Your task to perform on an android device: delete location history Image 0: 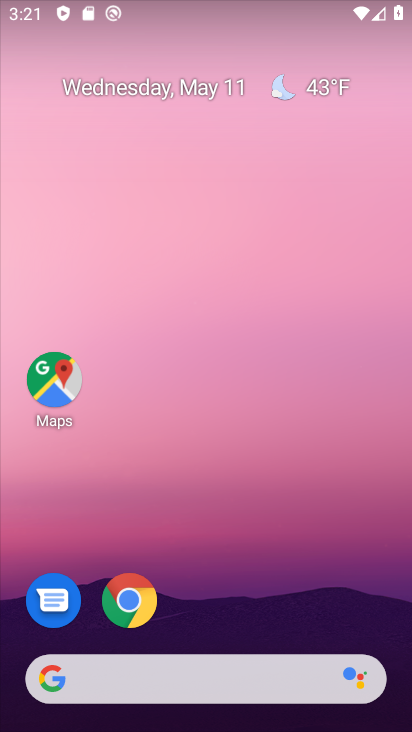
Step 0: click (53, 387)
Your task to perform on an android device: delete location history Image 1: 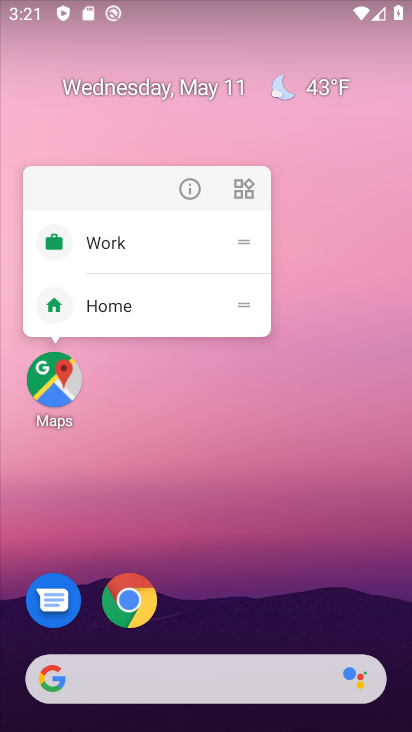
Step 1: click (53, 387)
Your task to perform on an android device: delete location history Image 2: 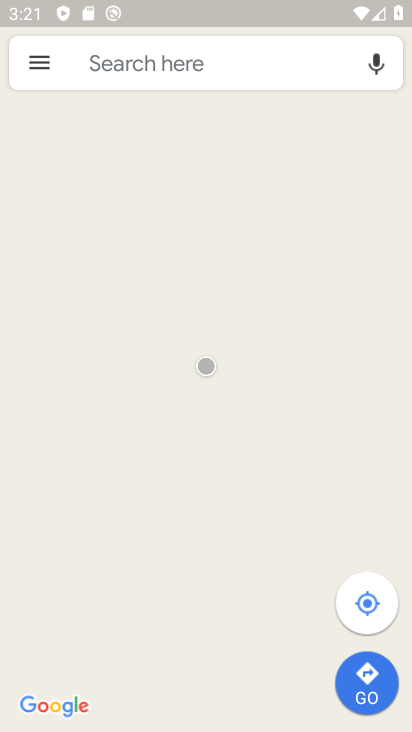
Step 2: click (38, 61)
Your task to perform on an android device: delete location history Image 3: 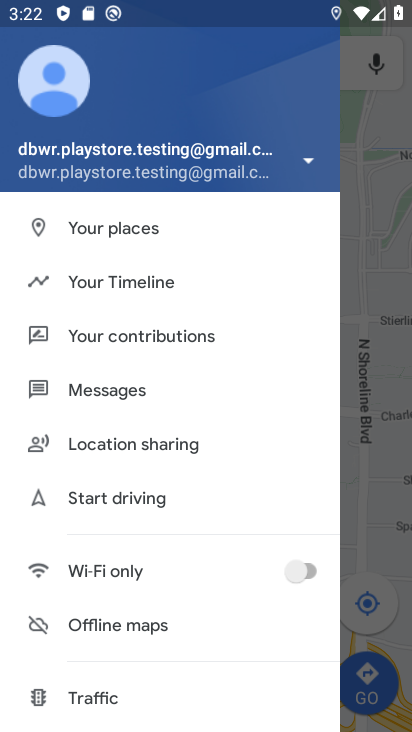
Step 3: click (90, 290)
Your task to perform on an android device: delete location history Image 4: 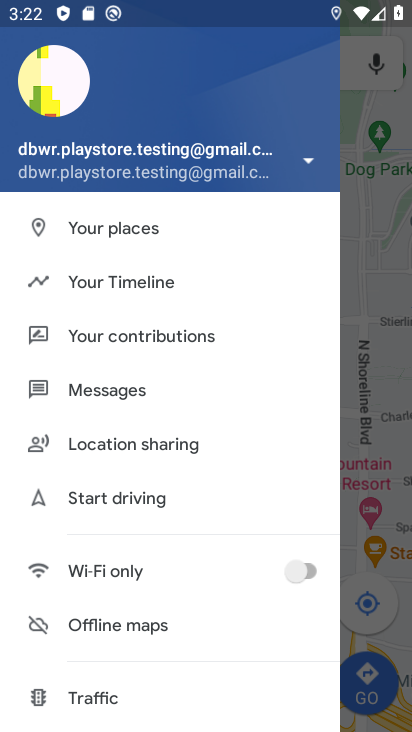
Step 4: click (128, 286)
Your task to perform on an android device: delete location history Image 5: 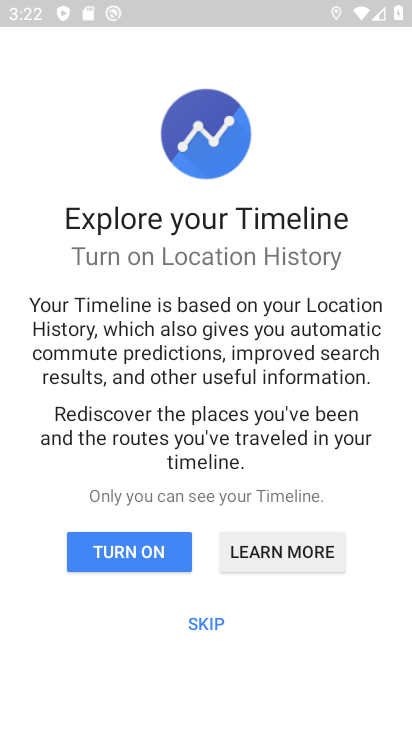
Step 5: click (212, 626)
Your task to perform on an android device: delete location history Image 6: 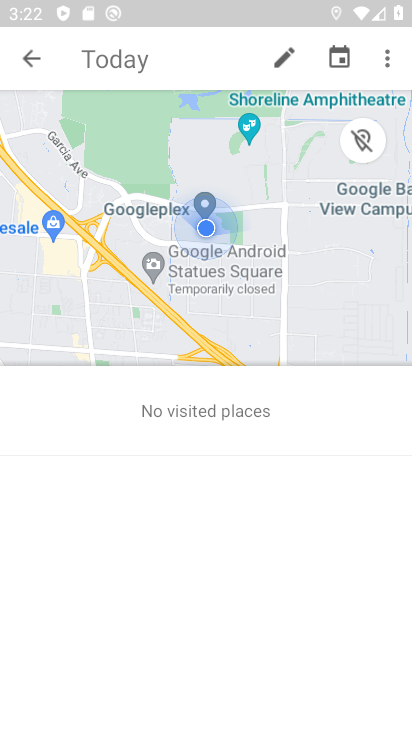
Step 6: click (389, 59)
Your task to perform on an android device: delete location history Image 7: 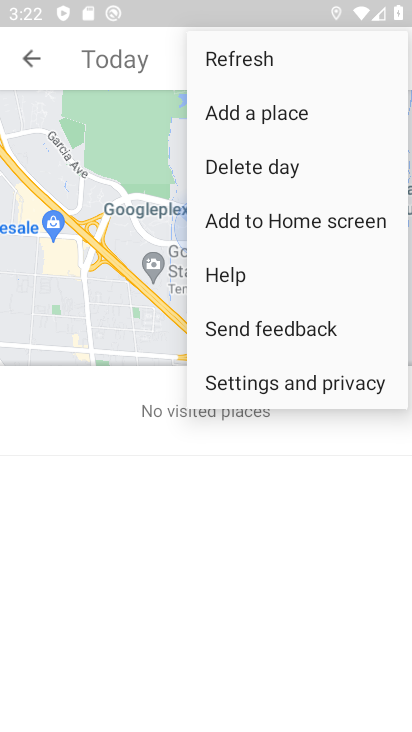
Step 7: click (260, 385)
Your task to perform on an android device: delete location history Image 8: 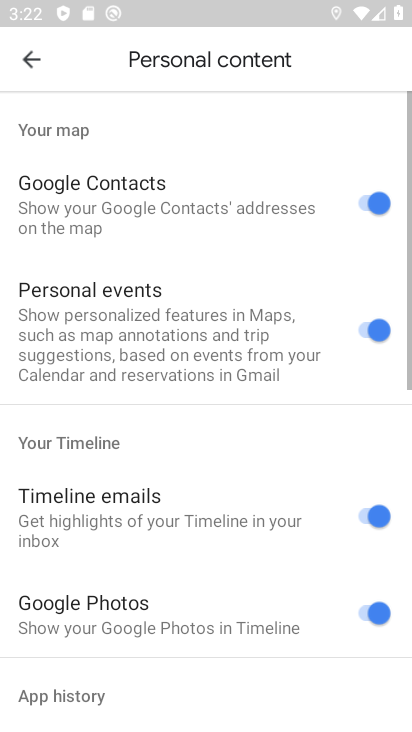
Step 8: drag from (134, 586) to (158, 174)
Your task to perform on an android device: delete location history Image 9: 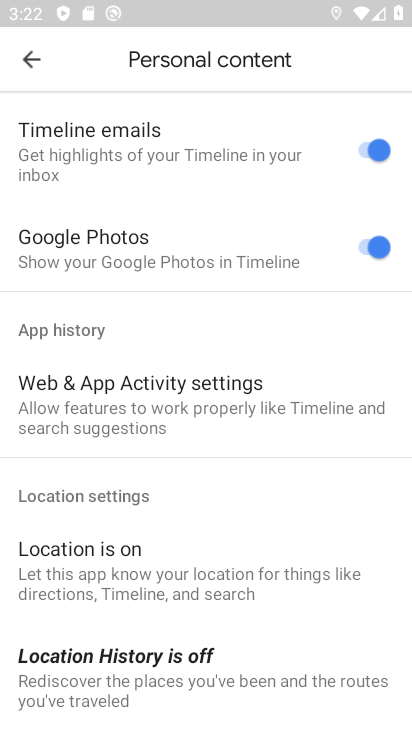
Step 9: drag from (140, 525) to (147, 204)
Your task to perform on an android device: delete location history Image 10: 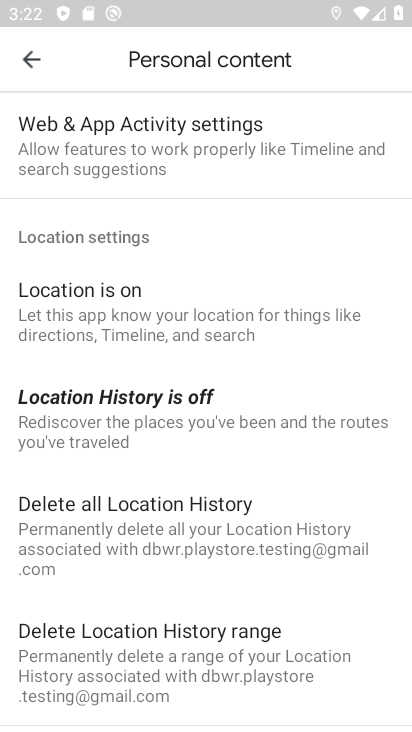
Step 10: click (128, 541)
Your task to perform on an android device: delete location history Image 11: 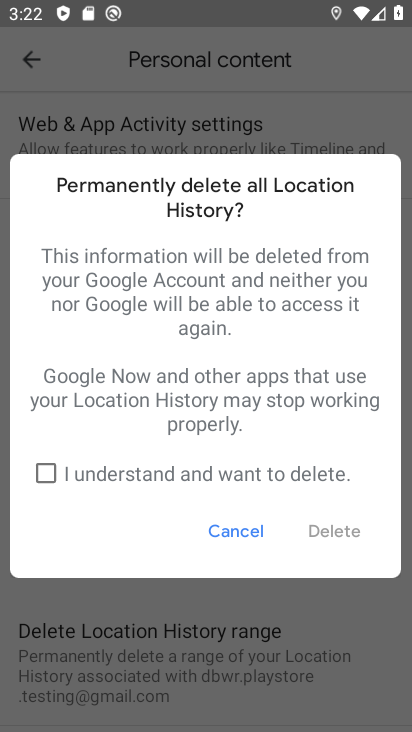
Step 11: click (48, 475)
Your task to perform on an android device: delete location history Image 12: 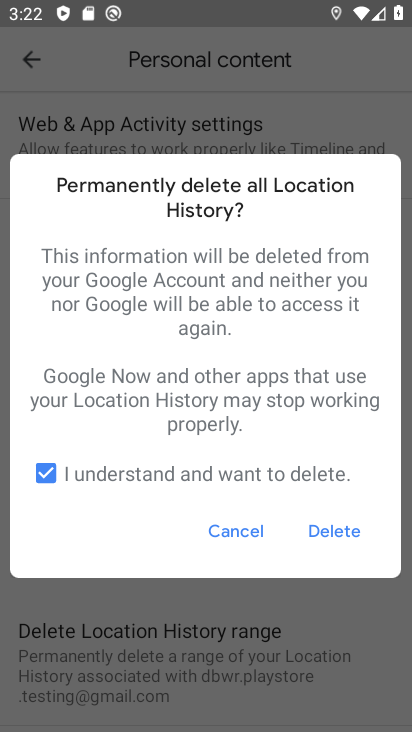
Step 12: click (342, 538)
Your task to perform on an android device: delete location history Image 13: 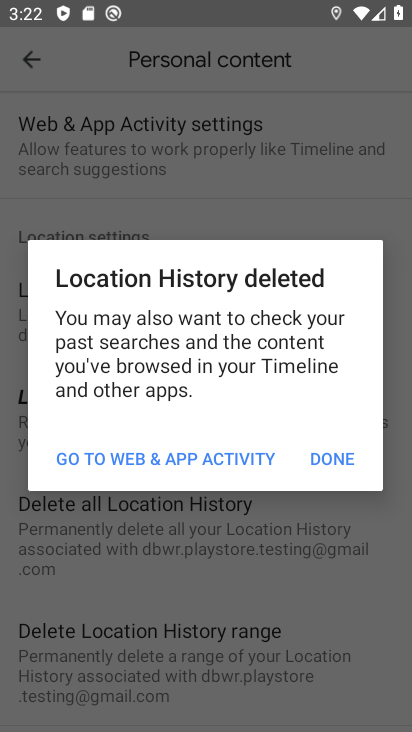
Step 13: click (323, 462)
Your task to perform on an android device: delete location history Image 14: 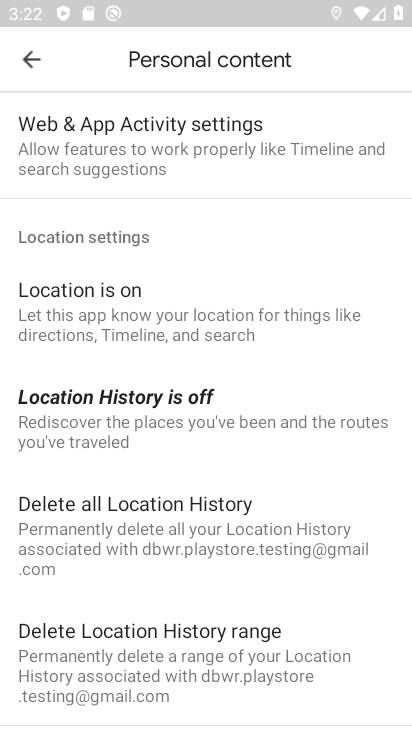
Step 14: task complete